Your task to perform on an android device: turn on priority inbox in the gmail app Image 0: 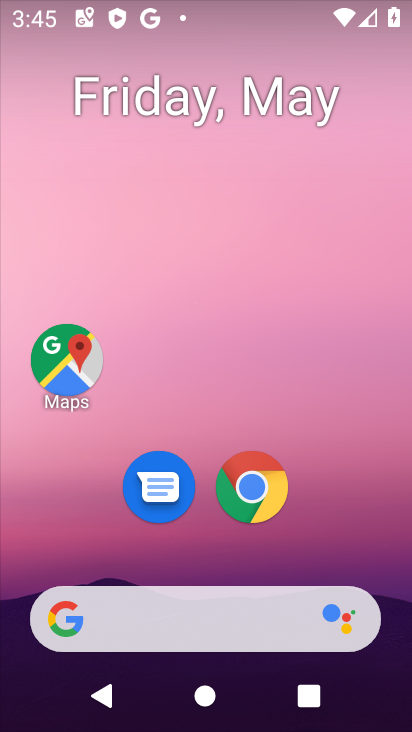
Step 0: drag from (400, 631) to (350, 57)
Your task to perform on an android device: turn on priority inbox in the gmail app Image 1: 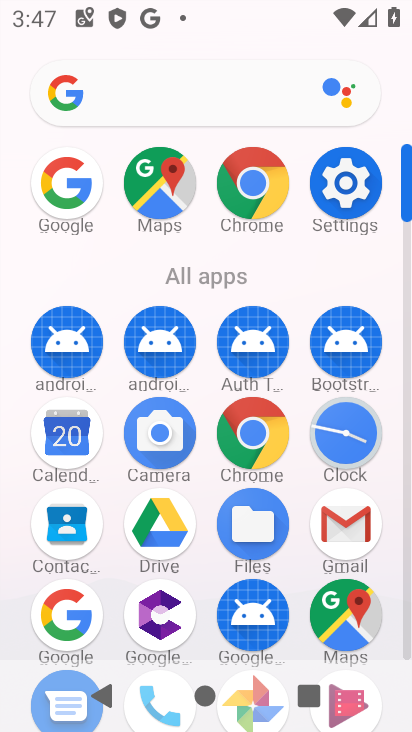
Step 1: click (339, 543)
Your task to perform on an android device: turn on priority inbox in the gmail app Image 2: 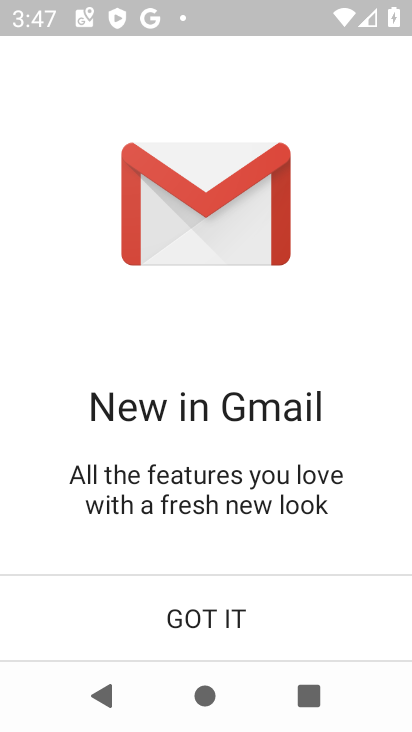
Step 2: click (238, 618)
Your task to perform on an android device: turn on priority inbox in the gmail app Image 3: 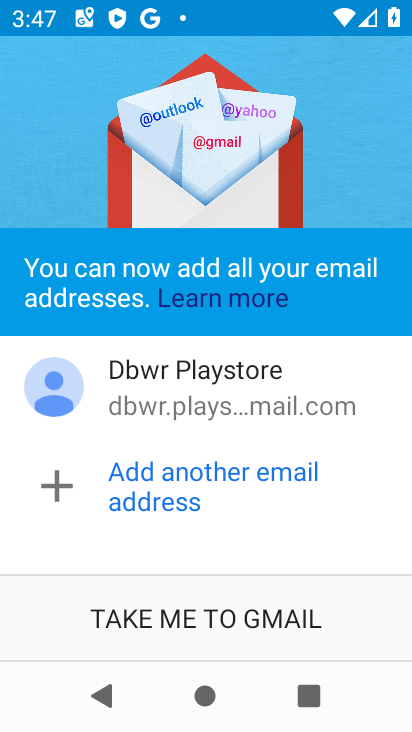
Step 3: click (238, 618)
Your task to perform on an android device: turn on priority inbox in the gmail app Image 4: 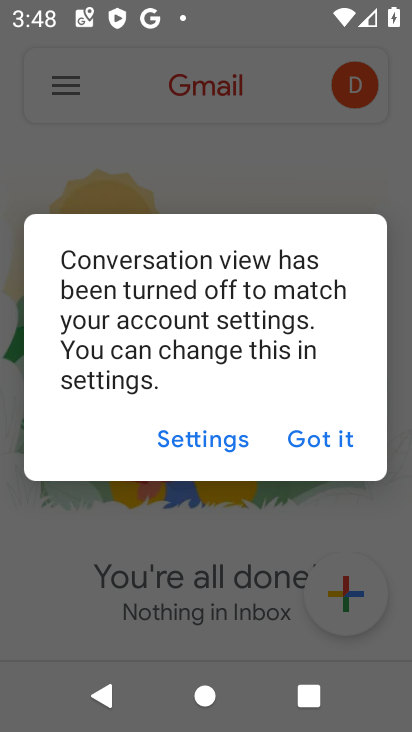
Step 4: click (324, 449)
Your task to perform on an android device: turn on priority inbox in the gmail app Image 5: 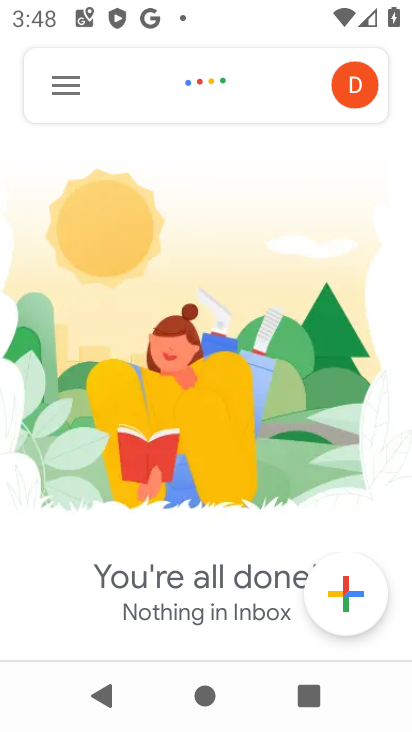
Step 5: click (64, 77)
Your task to perform on an android device: turn on priority inbox in the gmail app Image 6: 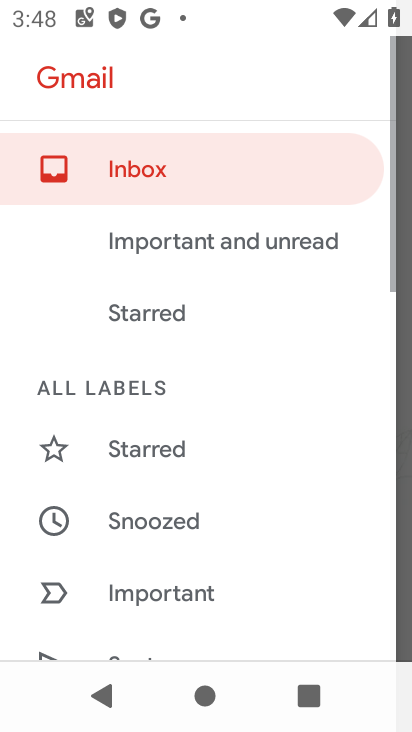
Step 6: drag from (106, 561) to (172, 25)
Your task to perform on an android device: turn on priority inbox in the gmail app Image 7: 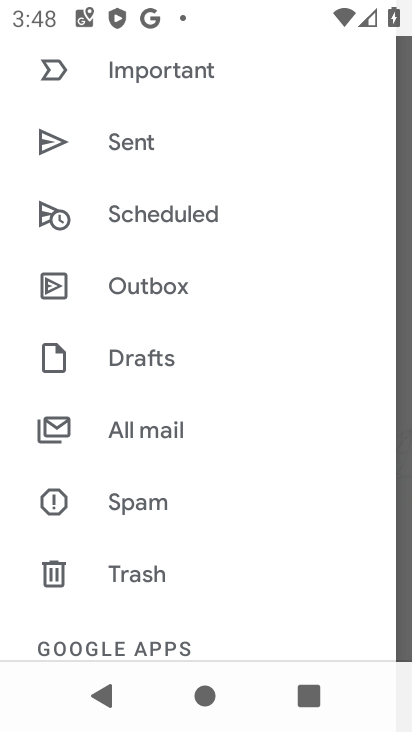
Step 7: drag from (140, 608) to (216, 55)
Your task to perform on an android device: turn on priority inbox in the gmail app Image 8: 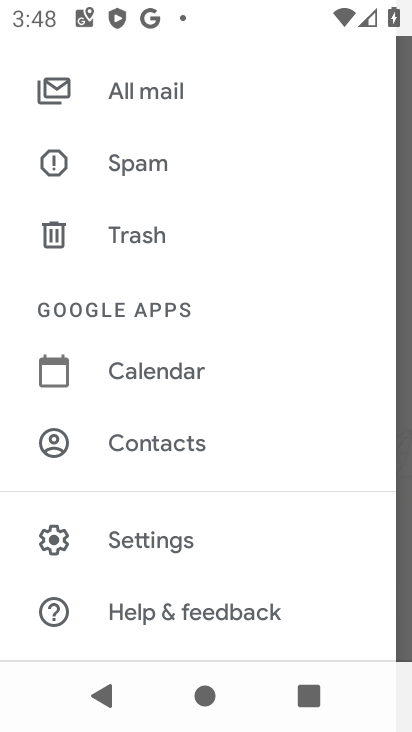
Step 8: click (187, 522)
Your task to perform on an android device: turn on priority inbox in the gmail app Image 9: 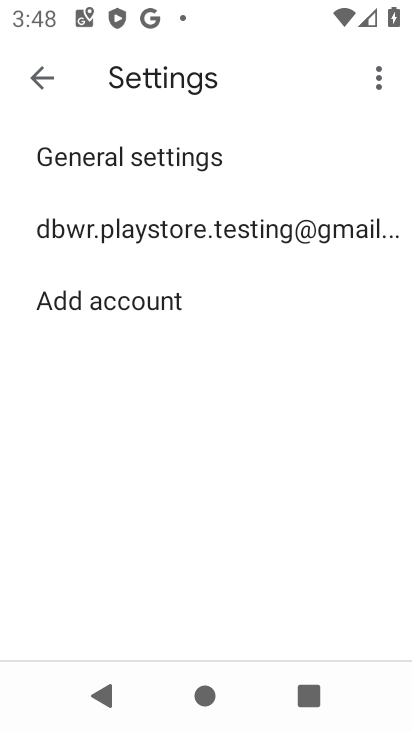
Step 9: click (189, 223)
Your task to perform on an android device: turn on priority inbox in the gmail app Image 10: 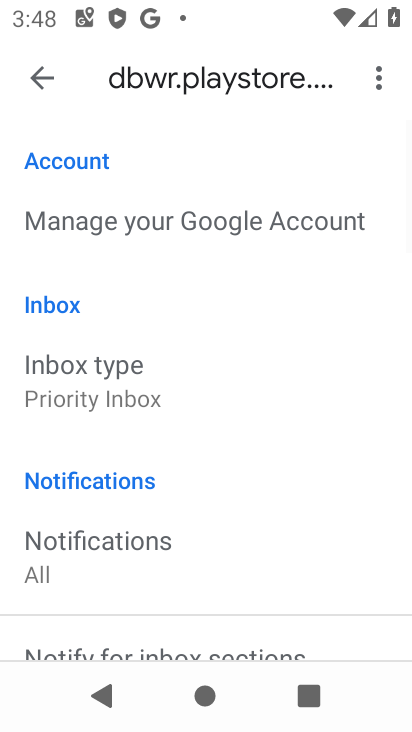
Step 10: click (140, 388)
Your task to perform on an android device: turn on priority inbox in the gmail app Image 11: 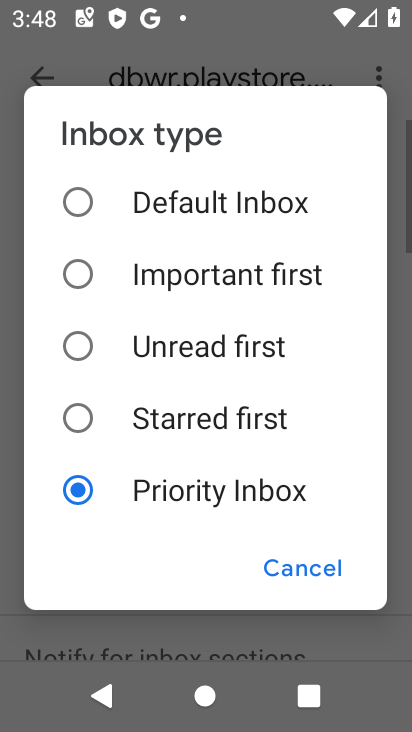
Step 11: click (170, 480)
Your task to perform on an android device: turn on priority inbox in the gmail app Image 12: 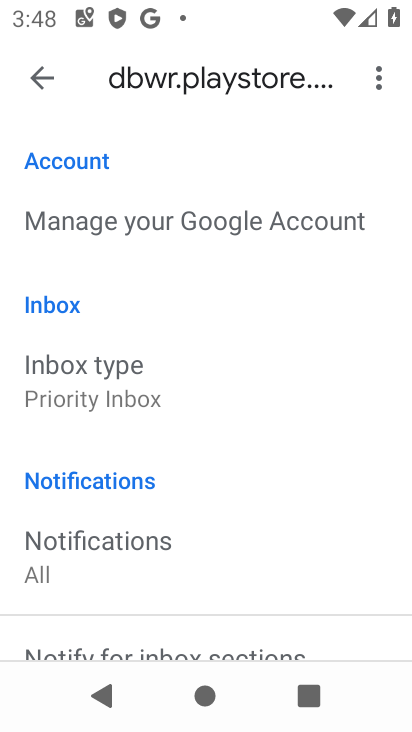
Step 12: task complete